Your task to perform on an android device: install app "Cash App" Image 0: 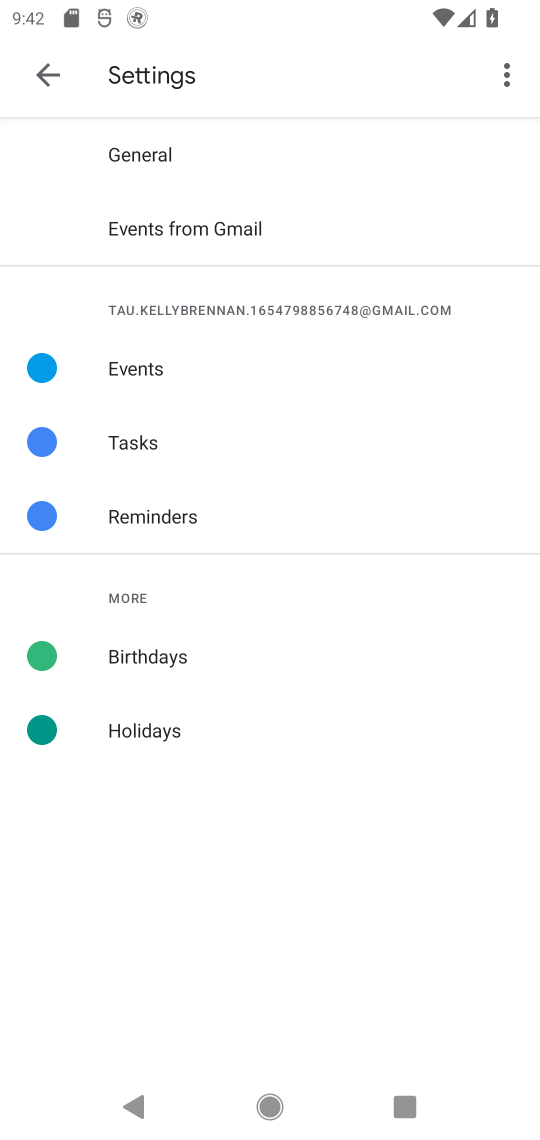
Step 0: press home button
Your task to perform on an android device: install app "Cash App" Image 1: 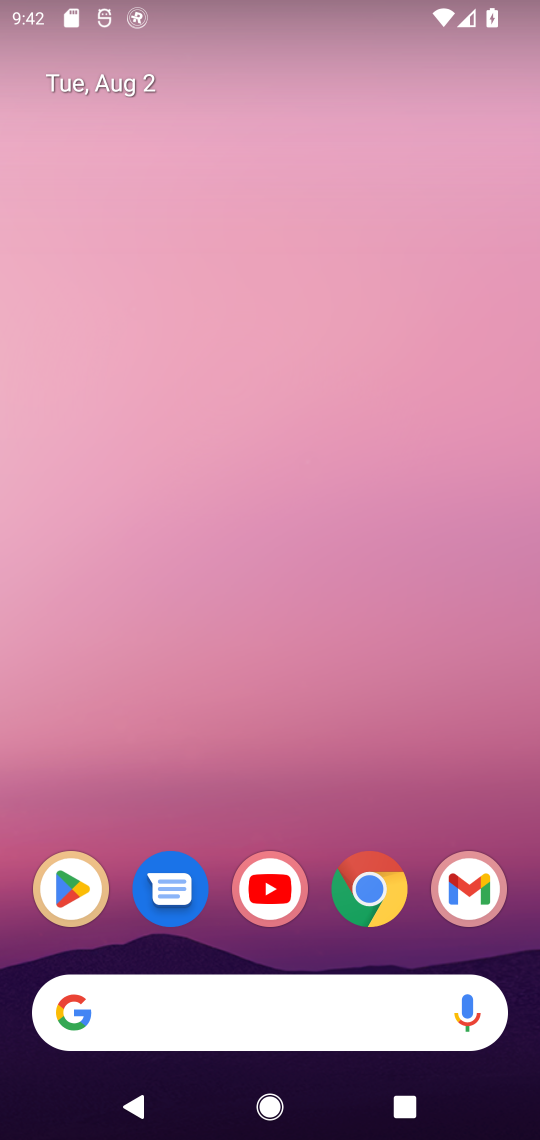
Step 1: click (60, 870)
Your task to perform on an android device: install app "Cash App" Image 2: 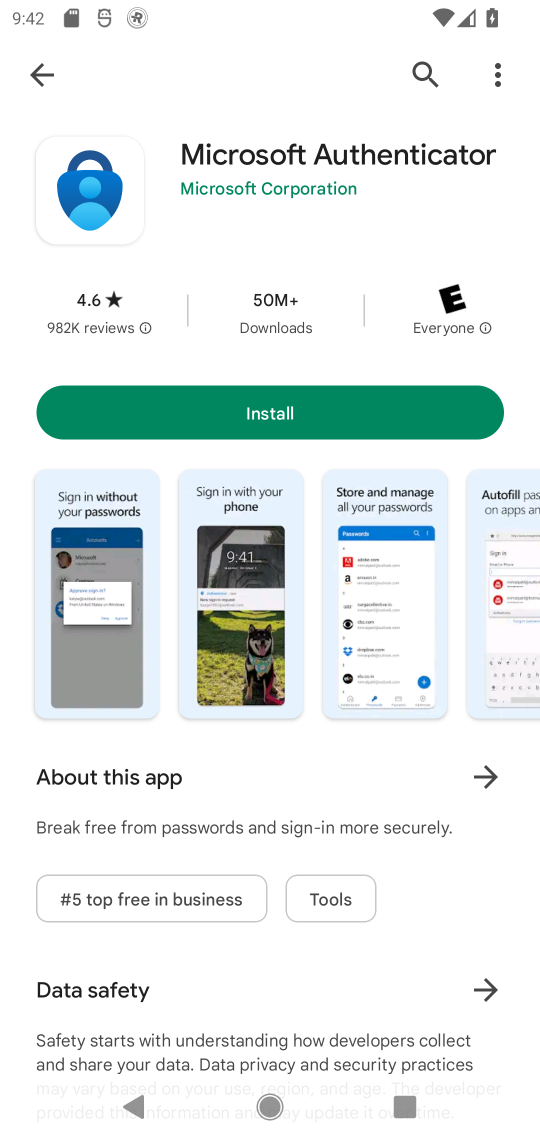
Step 2: click (422, 68)
Your task to perform on an android device: install app "Cash App" Image 3: 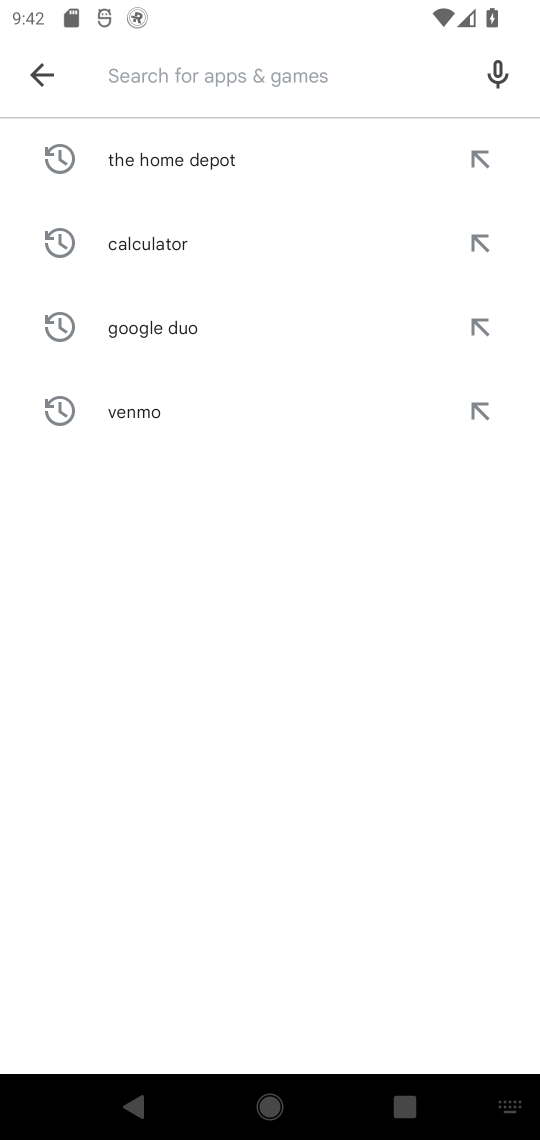
Step 3: type "Cash App"
Your task to perform on an android device: install app "Cash App" Image 4: 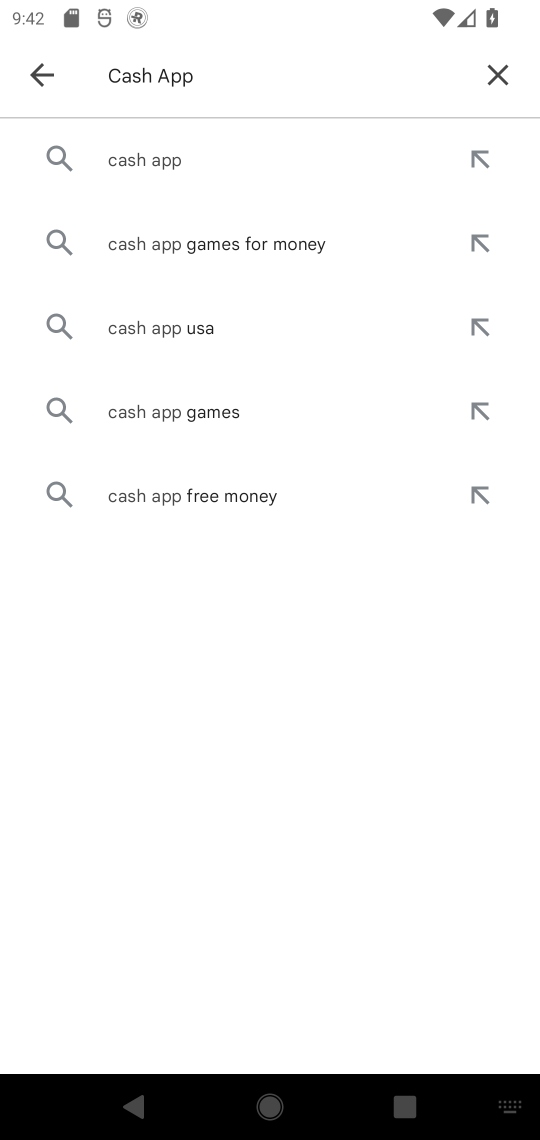
Step 4: click (136, 162)
Your task to perform on an android device: install app "Cash App" Image 5: 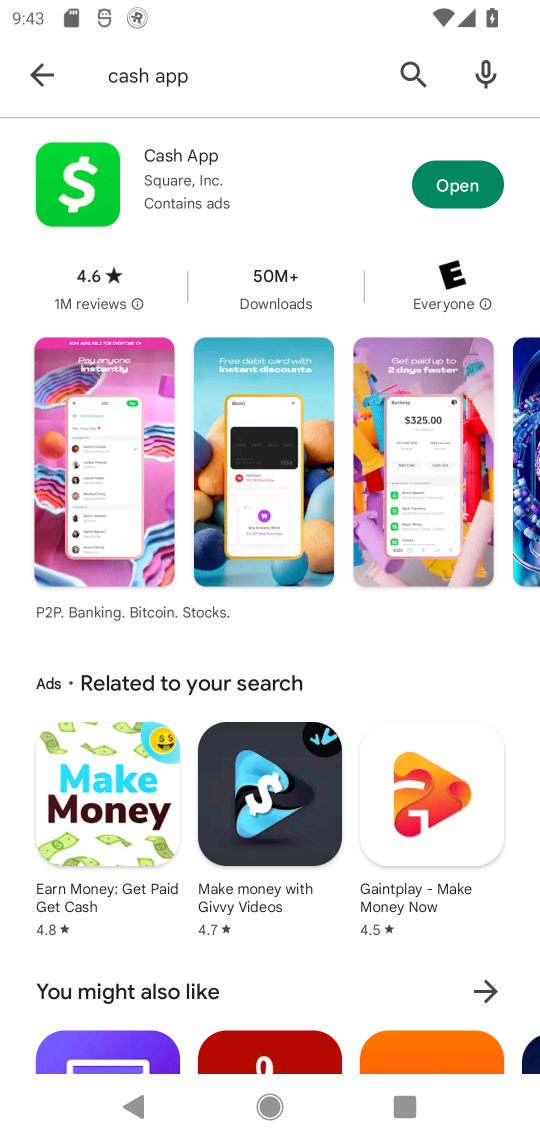
Step 5: task complete